Your task to perform on an android device: check data usage Image 0: 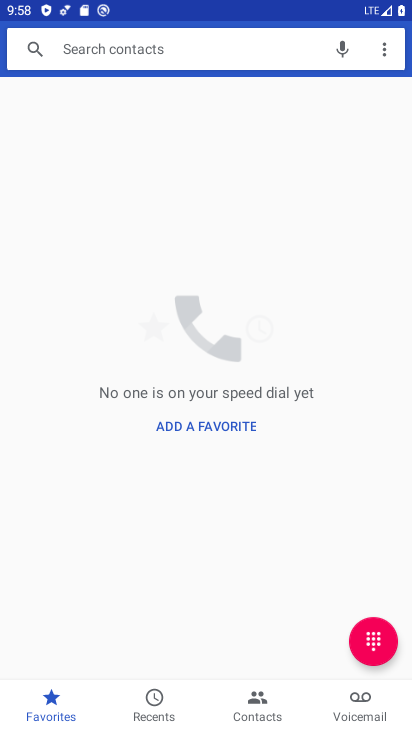
Step 0: press home button
Your task to perform on an android device: check data usage Image 1: 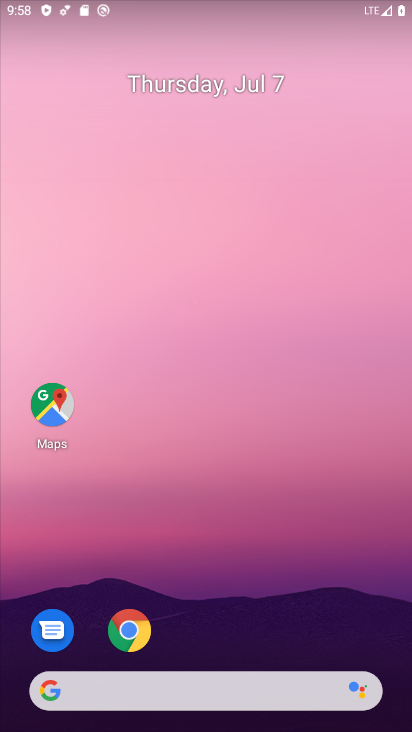
Step 1: drag from (222, 647) to (277, 39)
Your task to perform on an android device: check data usage Image 2: 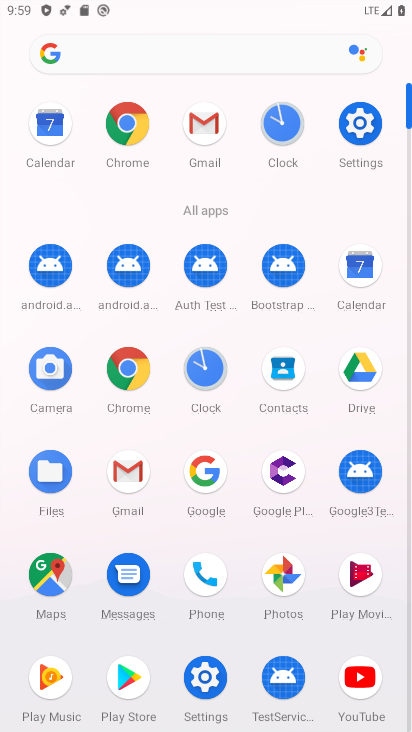
Step 2: click (360, 124)
Your task to perform on an android device: check data usage Image 3: 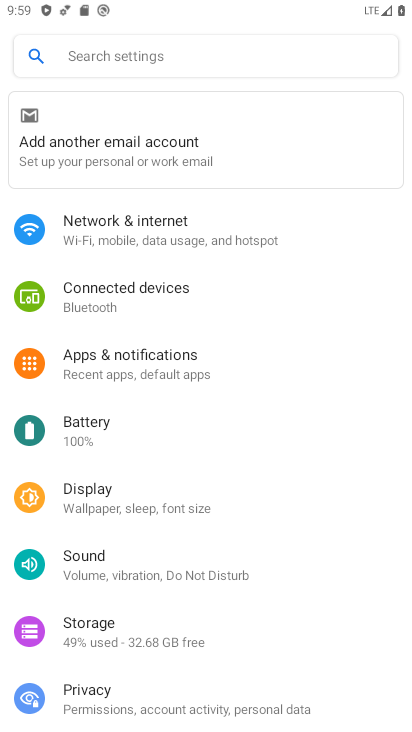
Step 3: click (159, 227)
Your task to perform on an android device: check data usage Image 4: 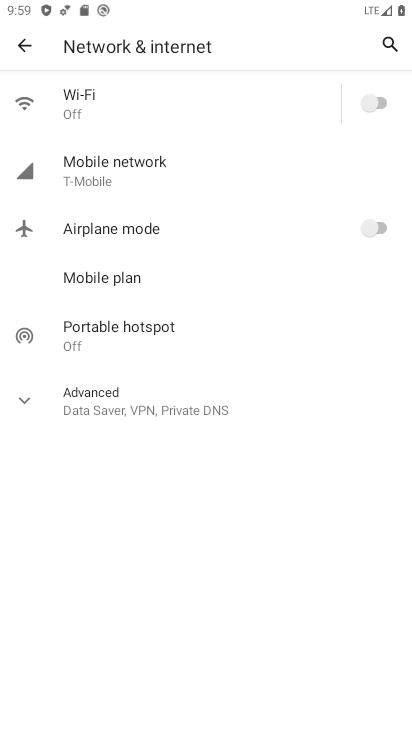
Step 4: click (139, 178)
Your task to perform on an android device: check data usage Image 5: 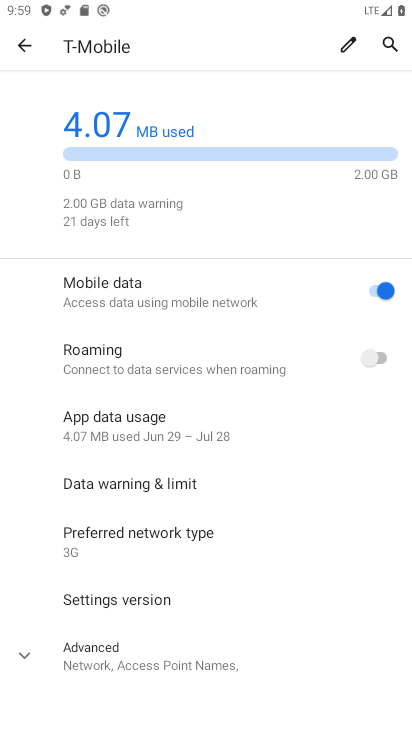
Step 5: click (167, 422)
Your task to perform on an android device: check data usage Image 6: 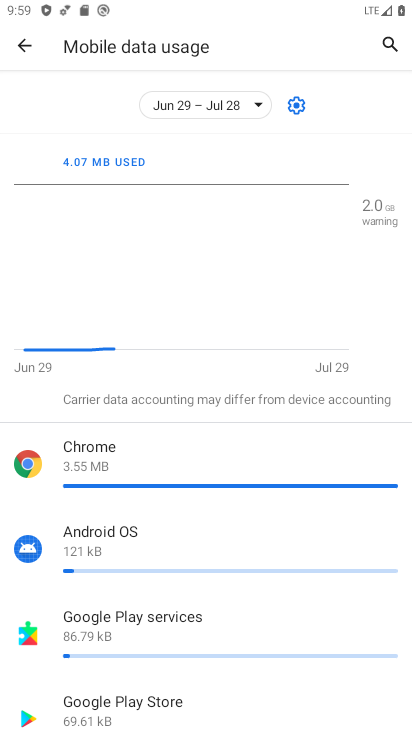
Step 6: task complete